Your task to perform on an android device: show emergency info Image 0: 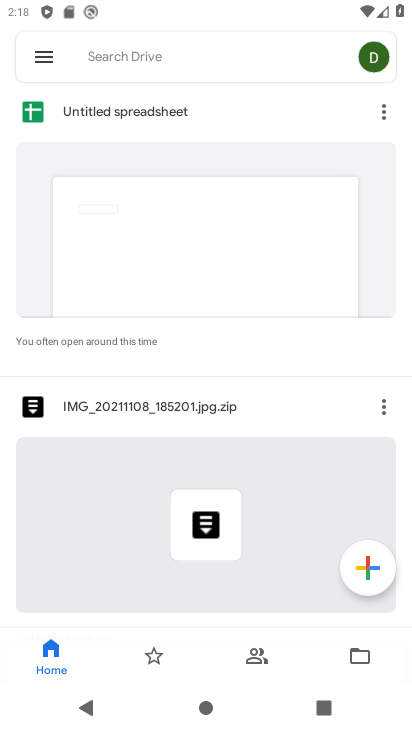
Step 0: press back button
Your task to perform on an android device: show emergency info Image 1: 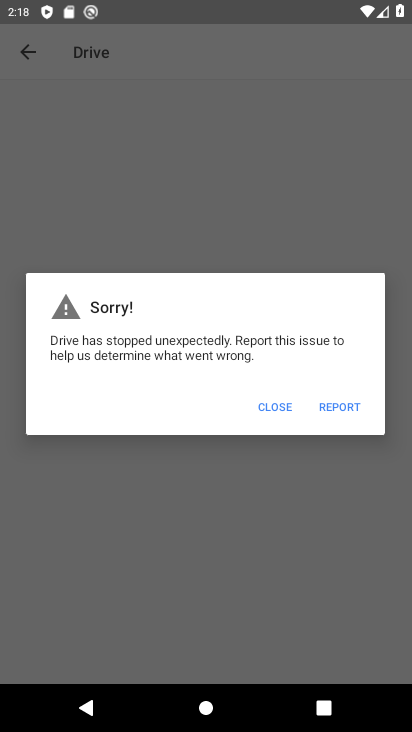
Step 1: press home button
Your task to perform on an android device: show emergency info Image 2: 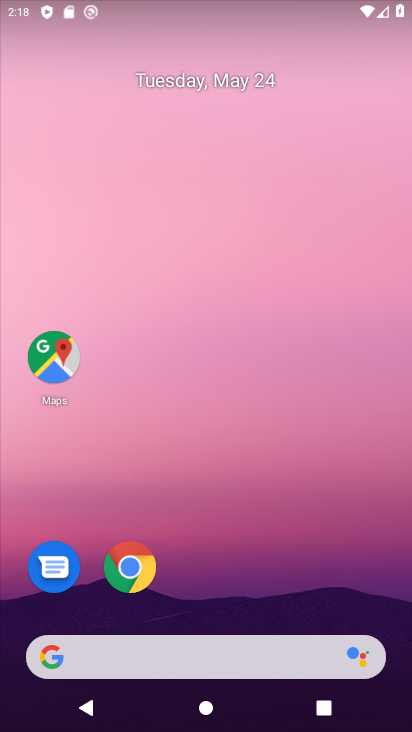
Step 2: drag from (214, 561) to (263, 62)
Your task to perform on an android device: show emergency info Image 3: 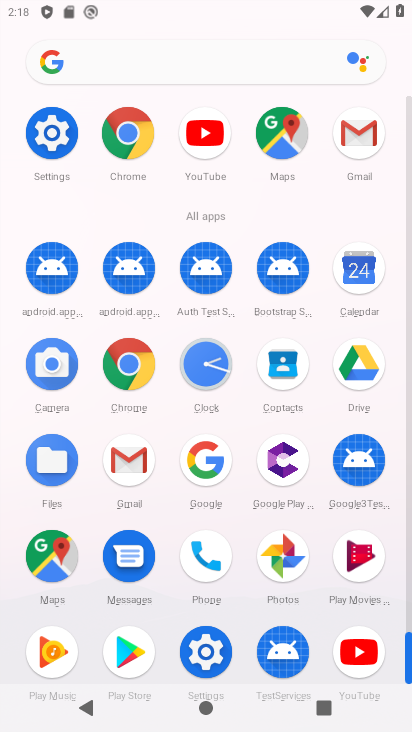
Step 3: click (60, 126)
Your task to perform on an android device: show emergency info Image 4: 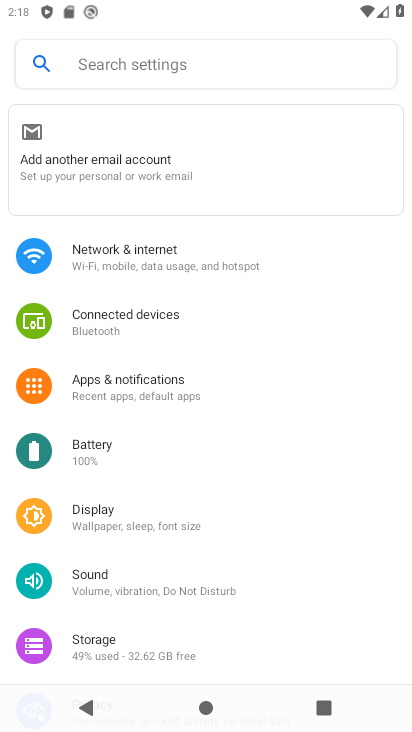
Step 4: drag from (183, 623) to (291, 81)
Your task to perform on an android device: show emergency info Image 5: 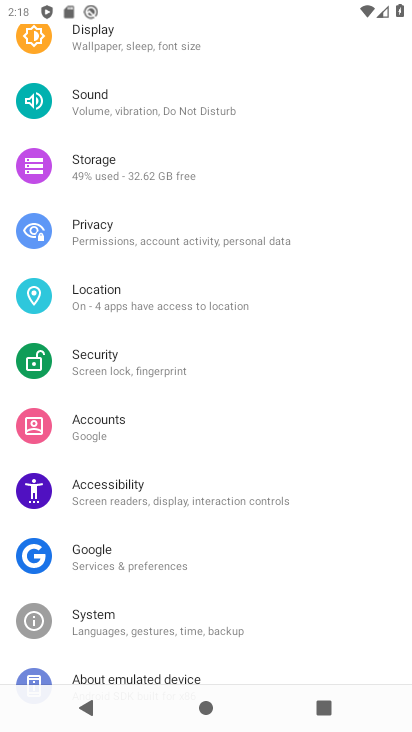
Step 5: drag from (139, 587) to (262, 63)
Your task to perform on an android device: show emergency info Image 6: 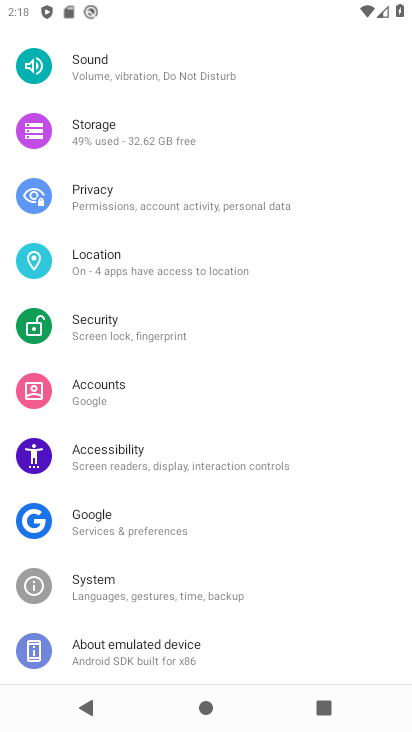
Step 6: click (132, 647)
Your task to perform on an android device: show emergency info Image 7: 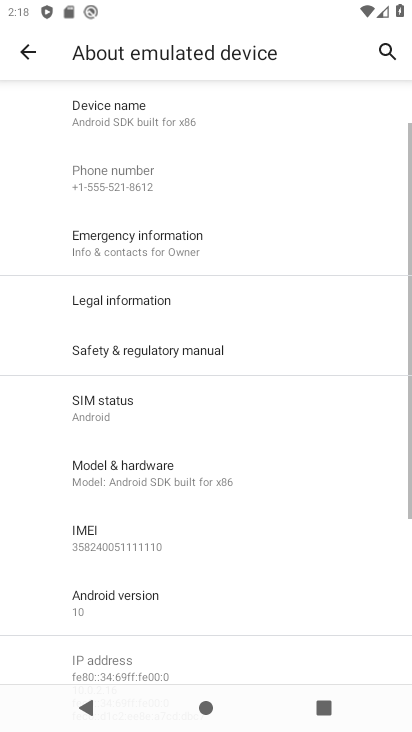
Step 7: click (197, 232)
Your task to perform on an android device: show emergency info Image 8: 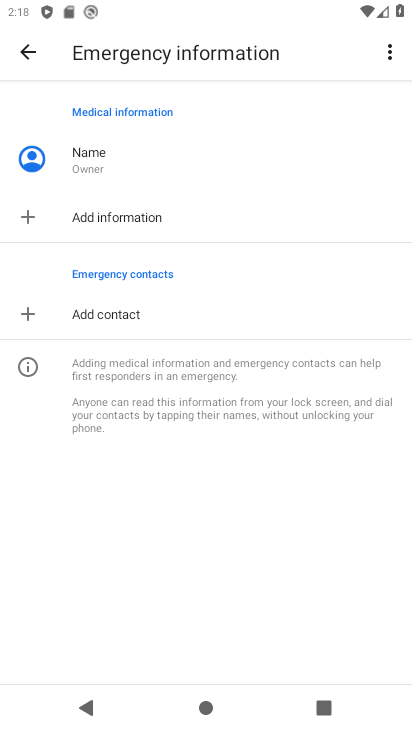
Step 8: task complete